Your task to perform on an android device: Go to Reddit.com Image 0: 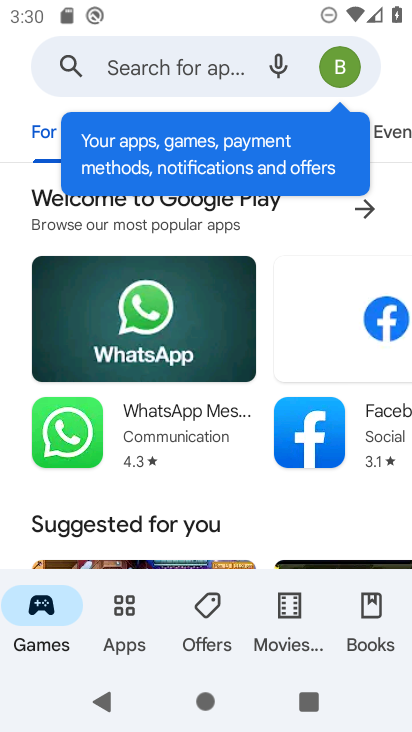
Step 0: press home button
Your task to perform on an android device: Go to Reddit.com Image 1: 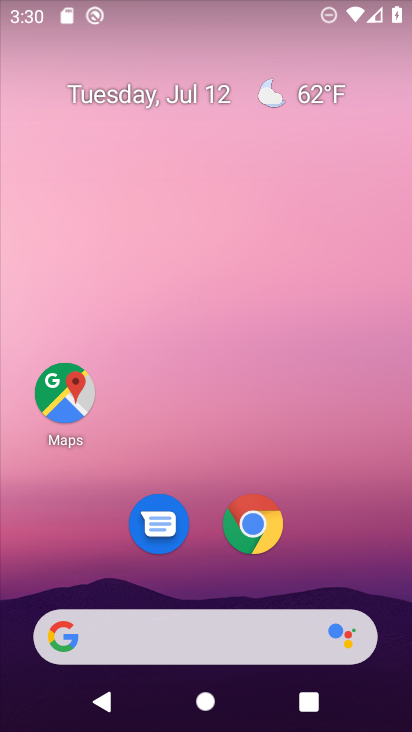
Step 1: click (263, 645)
Your task to perform on an android device: Go to Reddit.com Image 2: 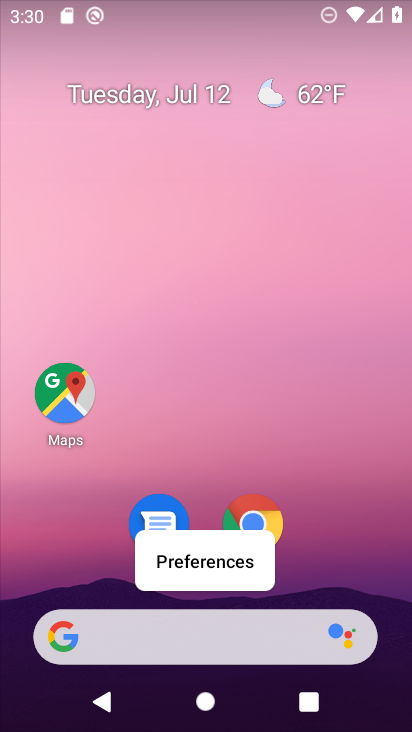
Step 2: click (179, 647)
Your task to perform on an android device: Go to Reddit.com Image 3: 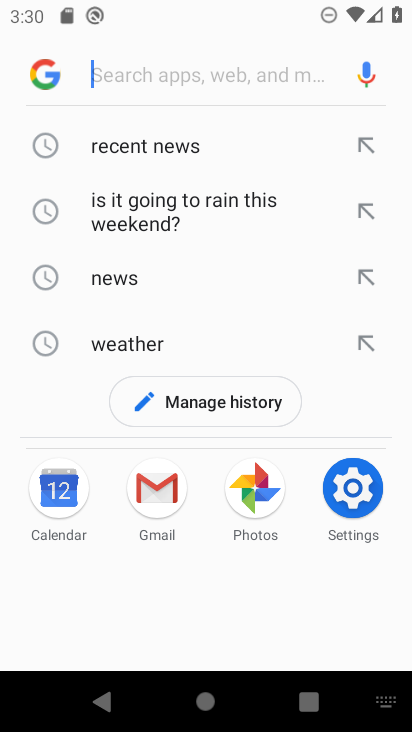
Step 3: type "reddit.com"
Your task to perform on an android device: Go to Reddit.com Image 4: 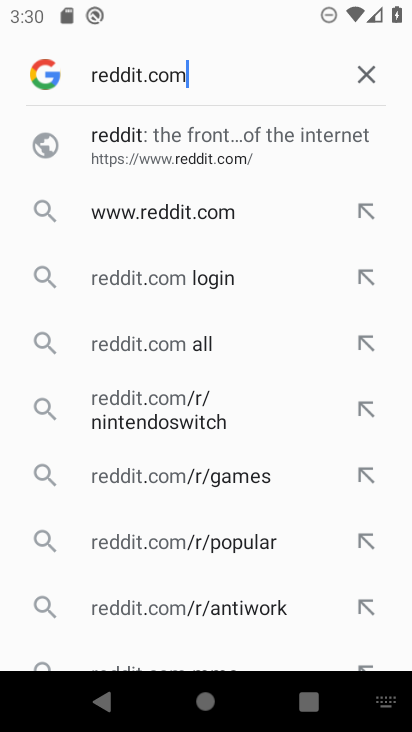
Step 4: click (113, 137)
Your task to perform on an android device: Go to Reddit.com Image 5: 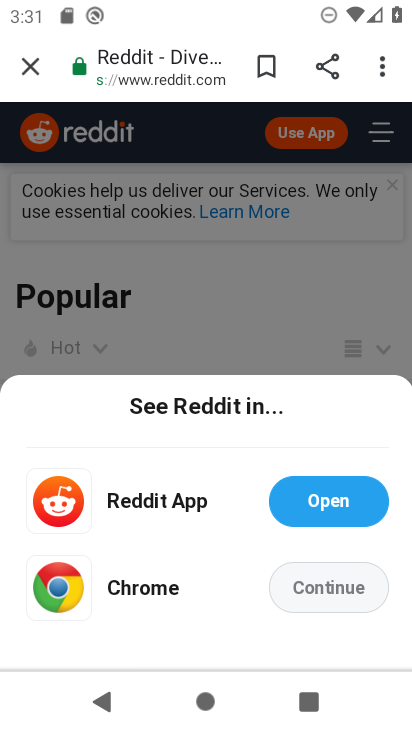
Step 5: click (331, 585)
Your task to perform on an android device: Go to Reddit.com Image 6: 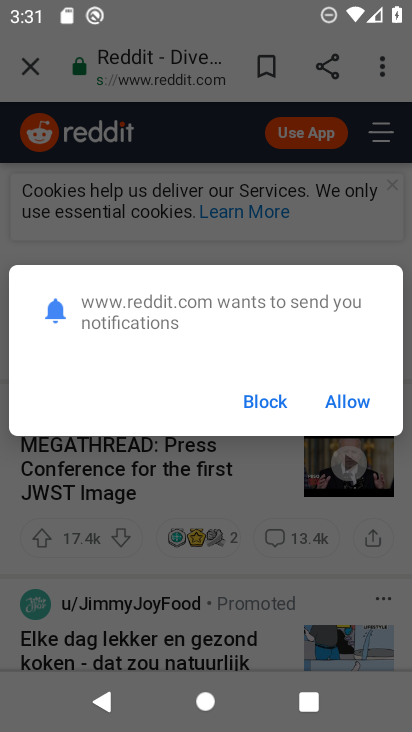
Step 6: click (261, 401)
Your task to perform on an android device: Go to Reddit.com Image 7: 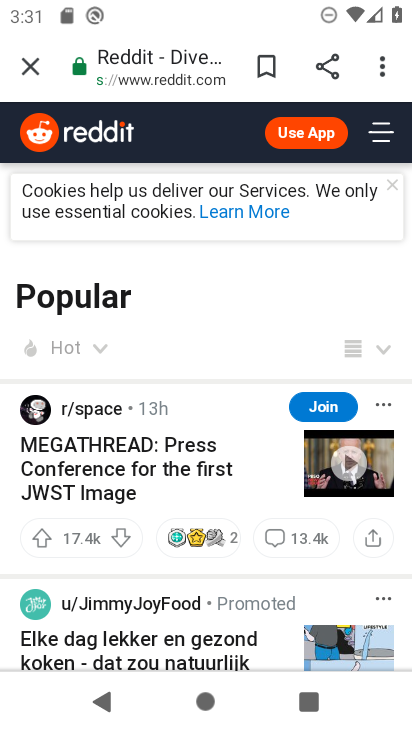
Step 7: task complete